Your task to perform on an android device: Open Google Chrome and click the shortcut for Amazon.com Image 0: 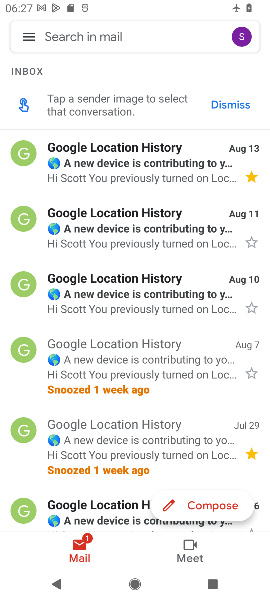
Step 0: press home button
Your task to perform on an android device: Open Google Chrome and click the shortcut for Amazon.com Image 1: 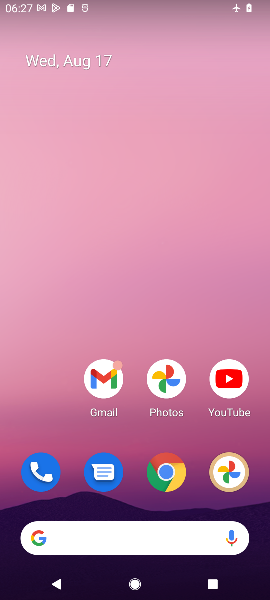
Step 1: click (169, 471)
Your task to perform on an android device: Open Google Chrome and click the shortcut for Amazon.com Image 2: 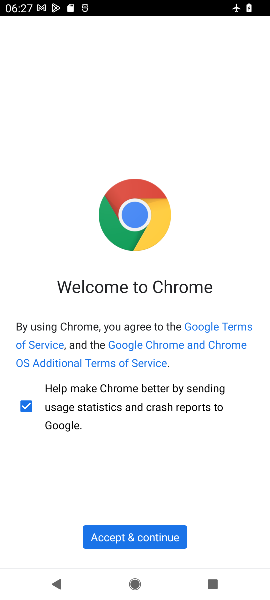
Step 2: click (164, 537)
Your task to perform on an android device: Open Google Chrome and click the shortcut for Amazon.com Image 3: 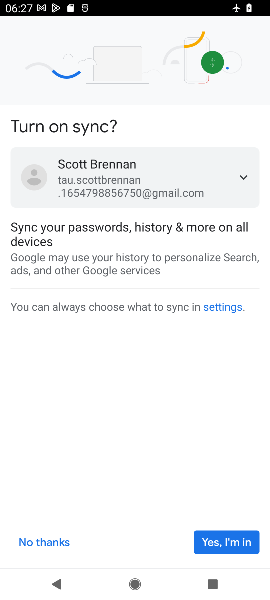
Step 3: click (210, 543)
Your task to perform on an android device: Open Google Chrome and click the shortcut for Amazon.com Image 4: 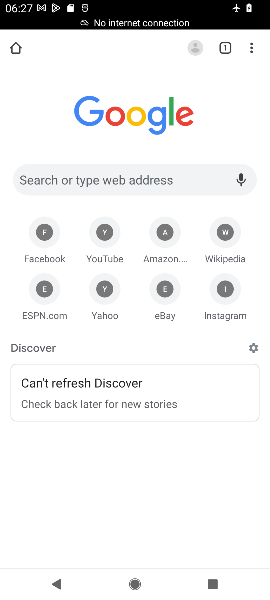
Step 4: click (168, 237)
Your task to perform on an android device: Open Google Chrome and click the shortcut for Amazon.com Image 5: 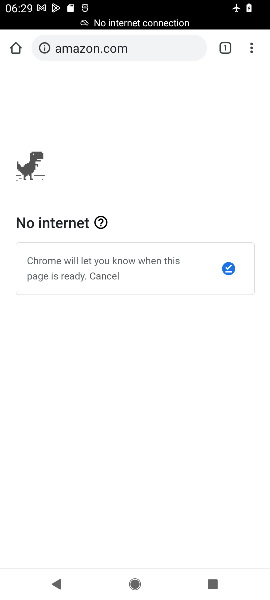
Step 5: task complete